Your task to perform on an android device: move an email to a new category in the gmail app Image 0: 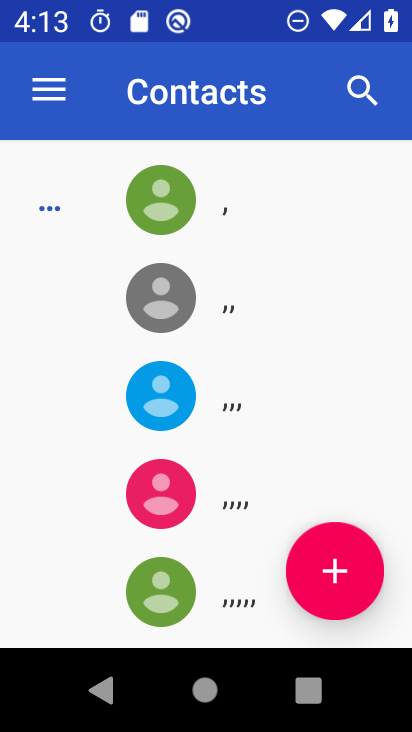
Step 0: press home button
Your task to perform on an android device: move an email to a new category in the gmail app Image 1: 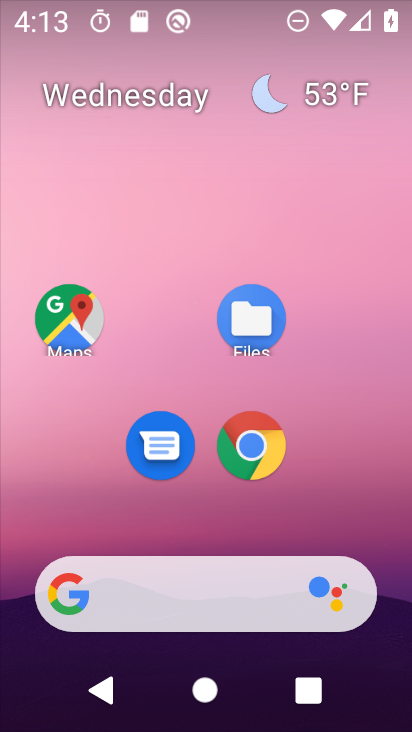
Step 1: drag from (338, 504) to (397, 177)
Your task to perform on an android device: move an email to a new category in the gmail app Image 2: 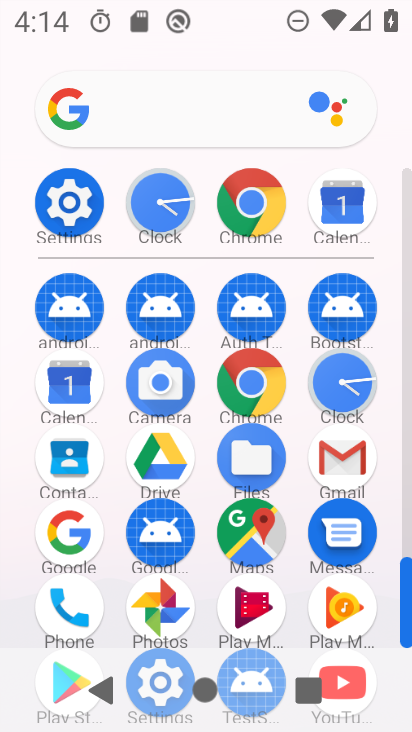
Step 2: click (344, 461)
Your task to perform on an android device: move an email to a new category in the gmail app Image 3: 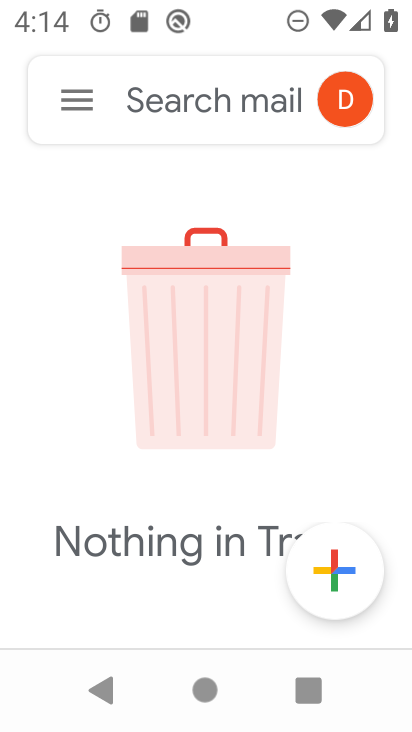
Step 3: click (78, 84)
Your task to perform on an android device: move an email to a new category in the gmail app Image 4: 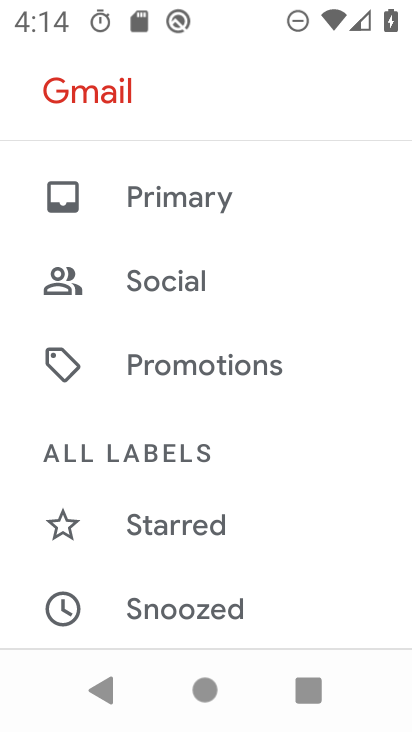
Step 4: task complete